Your task to perform on an android device: star an email in the gmail app Image 0: 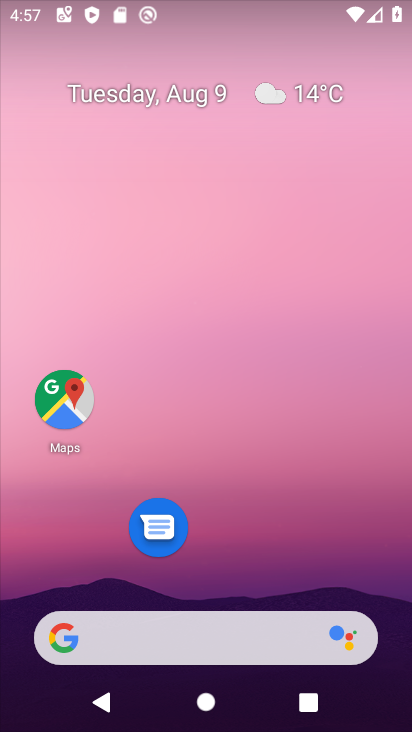
Step 0: drag from (297, 555) to (235, 72)
Your task to perform on an android device: star an email in the gmail app Image 1: 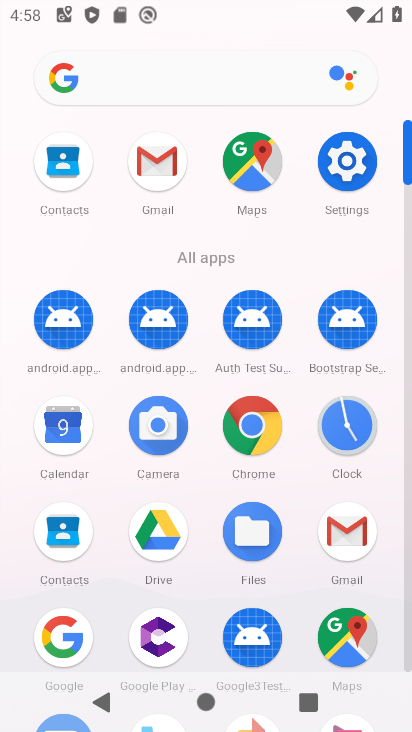
Step 1: click (152, 141)
Your task to perform on an android device: star an email in the gmail app Image 2: 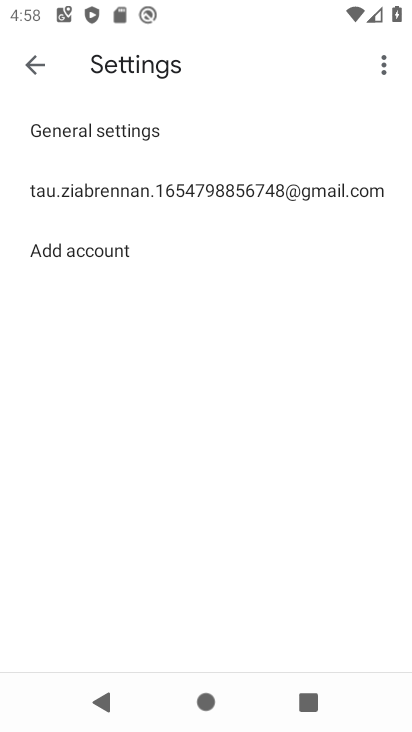
Step 2: click (39, 65)
Your task to perform on an android device: star an email in the gmail app Image 3: 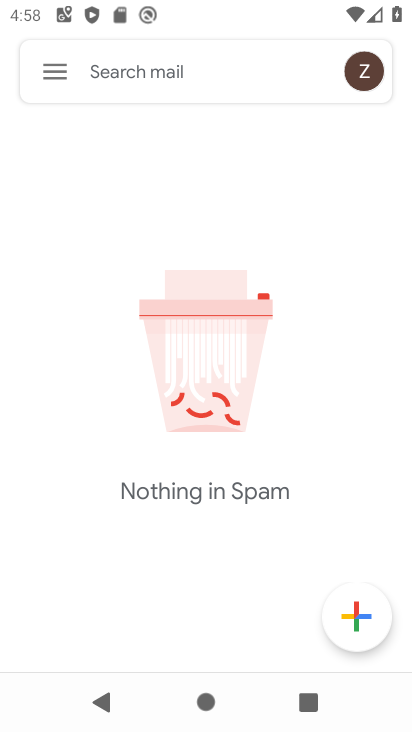
Step 3: click (39, 65)
Your task to perform on an android device: star an email in the gmail app Image 4: 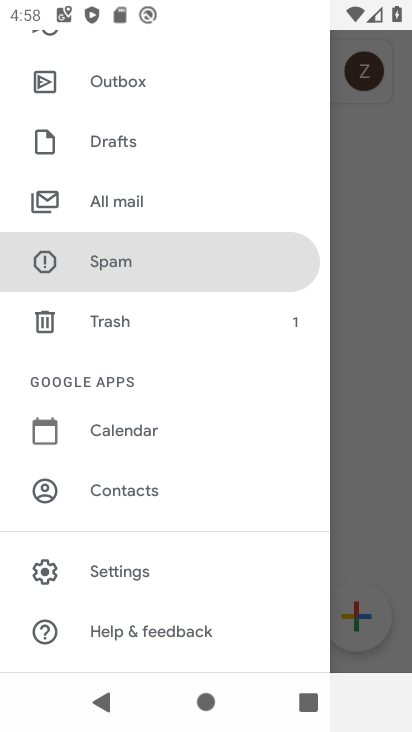
Step 4: click (103, 200)
Your task to perform on an android device: star an email in the gmail app Image 5: 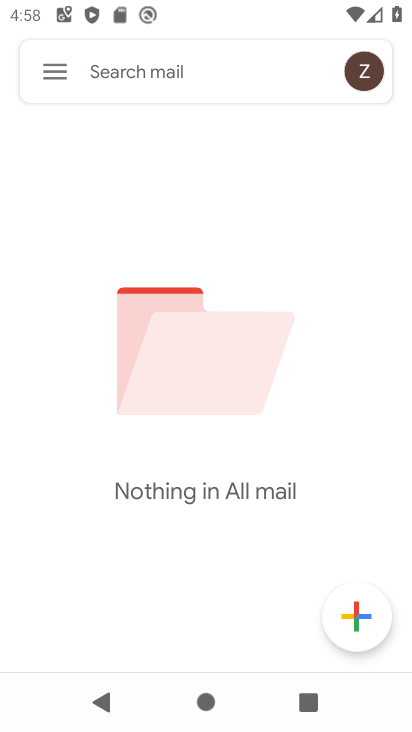
Step 5: task complete